Your task to perform on an android device: open the mobile data screen to see how much data has been used Image 0: 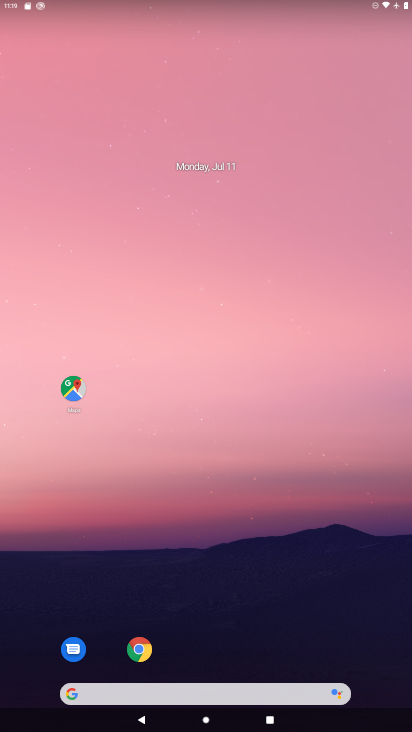
Step 0: drag from (316, 489) to (255, 191)
Your task to perform on an android device: open the mobile data screen to see how much data has been used Image 1: 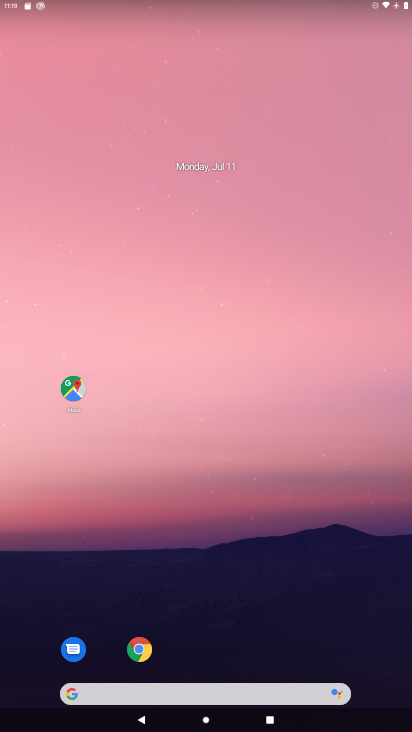
Step 1: drag from (320, 597) to (243, 1)
Your task to perform on an android device: open the mobile data screen to see how much data has been used Image 2: 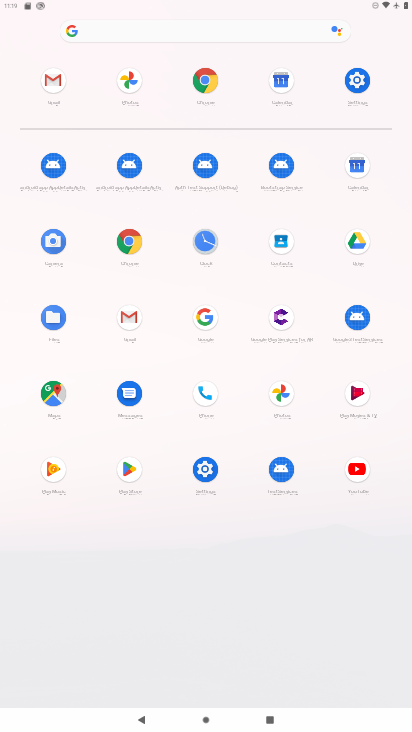
Step 2: click (354, 81)
Your task to perform on an android device: open the mobile data screen to see how much data has been used Image 3: 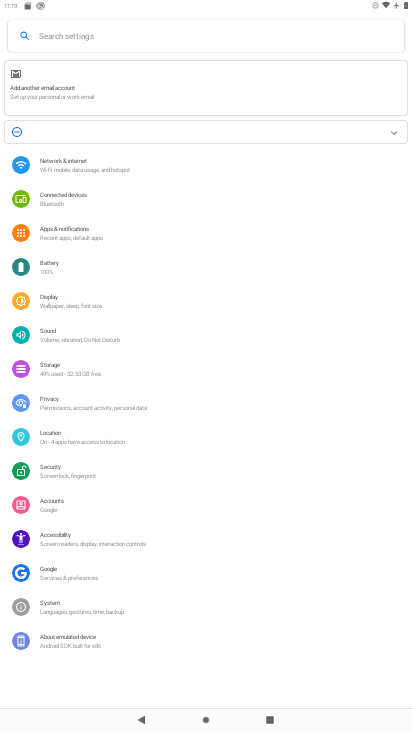
Step 3: click (64, 162)
Your task to perform on an android device: open the mobile data screen to see how much data has been used Image 4: 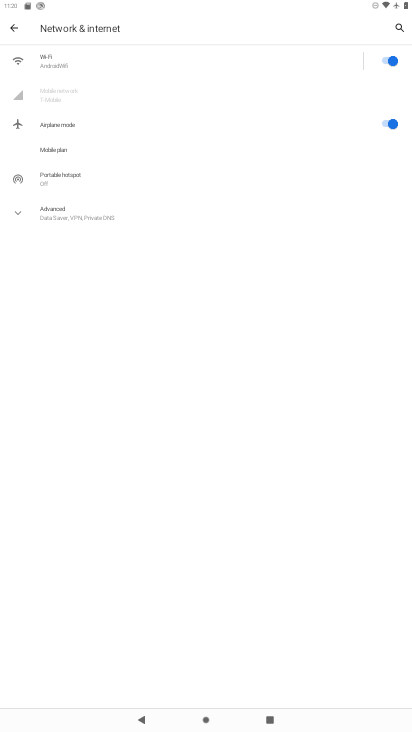
Step 4: click (53, 103)
Your task to perform on an android device: open the mobile data screen to see how much data has been used Image 5: 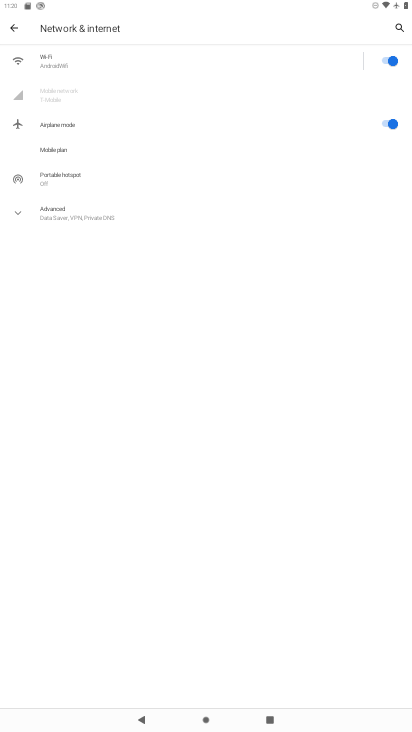
Step 5: task complete